Your task to perform on an android device: change the clock style Image 0: 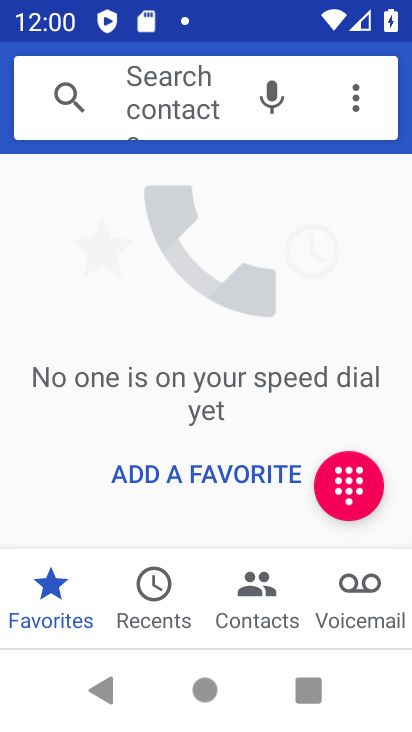
Step 0: press home button
Your task to perform on an android device: change the clock style Image 1: 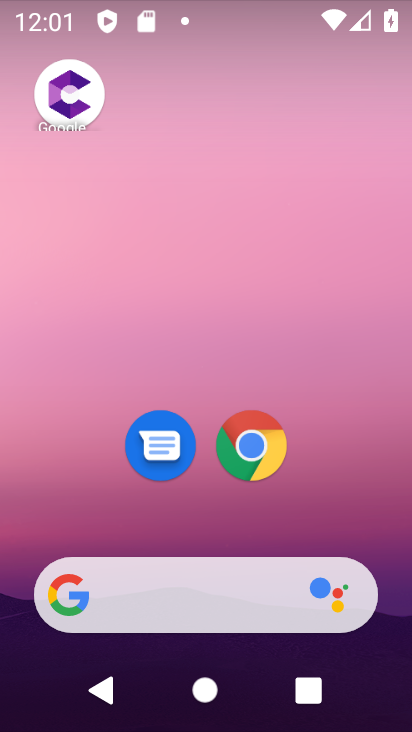
Step 1: drag from (224, 465) to (232, 76)
Your task to perform on an android device: change the clock style Image 2: 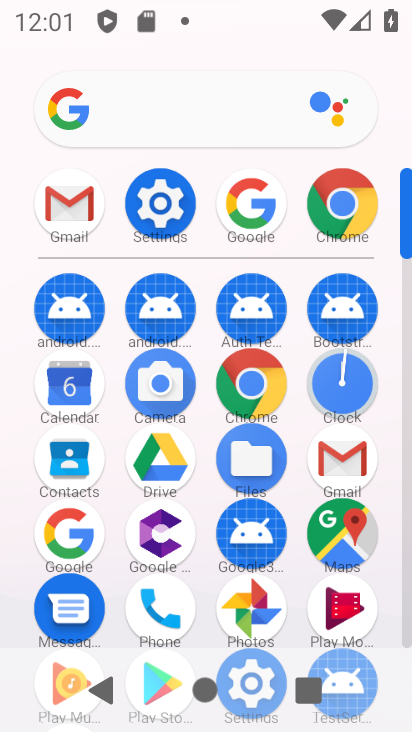
Step 2: click (334, 392)
Your task to perform on an android device: change the clock style Image 3: 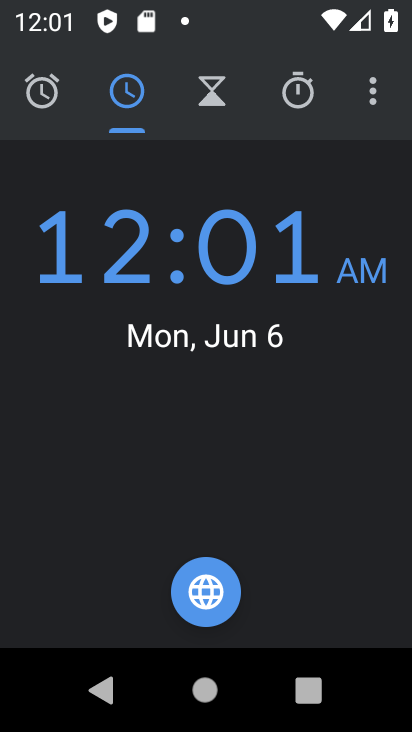
Step 3: click (369, 100)
Your task to perform on an android device: change the clock style Image 4: 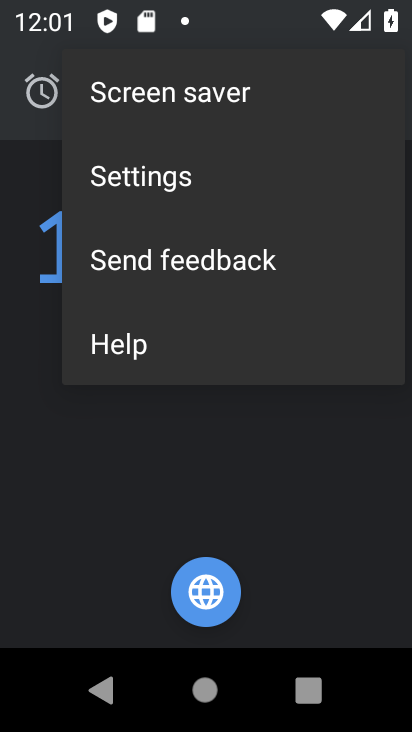
Step 4: click (198, 174)
Your task to perform on an android device: change the clock style Image 5: 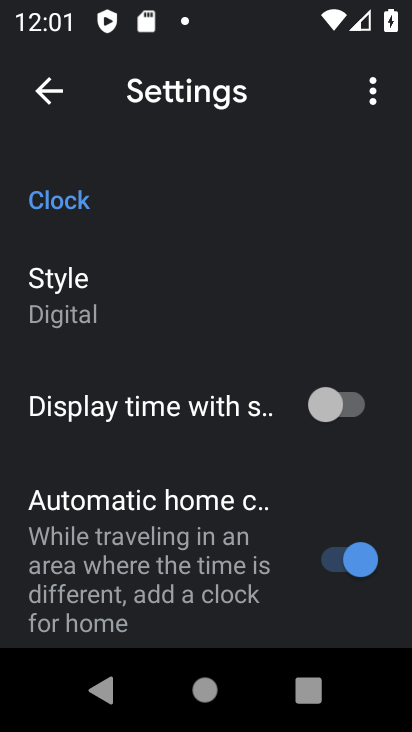
Step 5: click (71, 287)
Your task to perform on an android device: change the clock style Image 6: 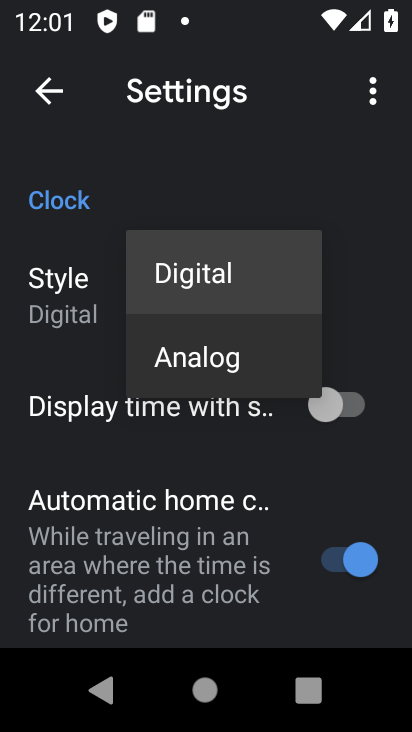
Step 6: click (154, 357)
Your task to perform on an android device: change the clock style Image 7: 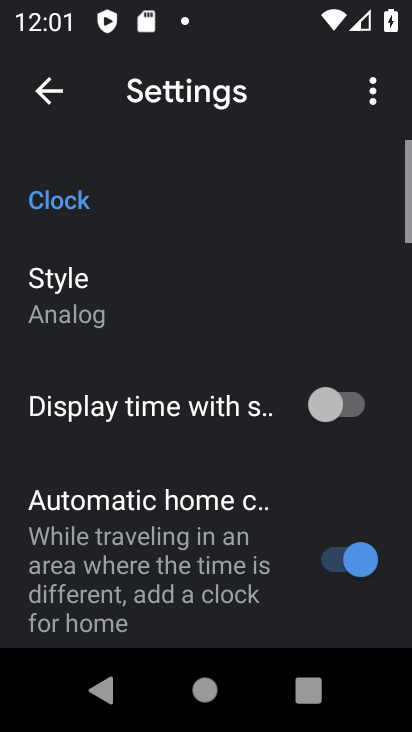
Step 7: task complete